Your task to perform on an android device: Add "dell xps" to the cart on walmart.com, then select checkout. Image 0: 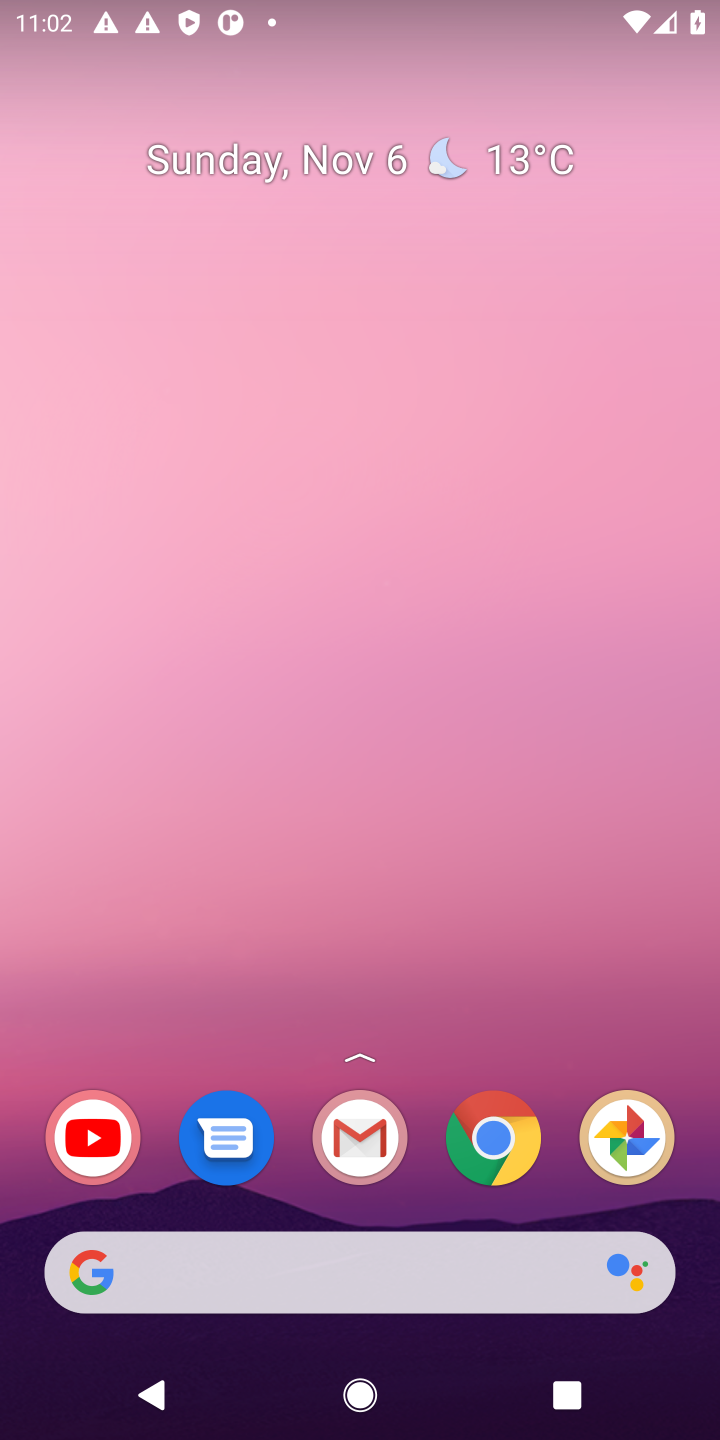
Step 0: click (494, 1143)
Your task to perform on an android device: Add "dell xps" to the cart on walmart.com, then select checkout. Image 1: 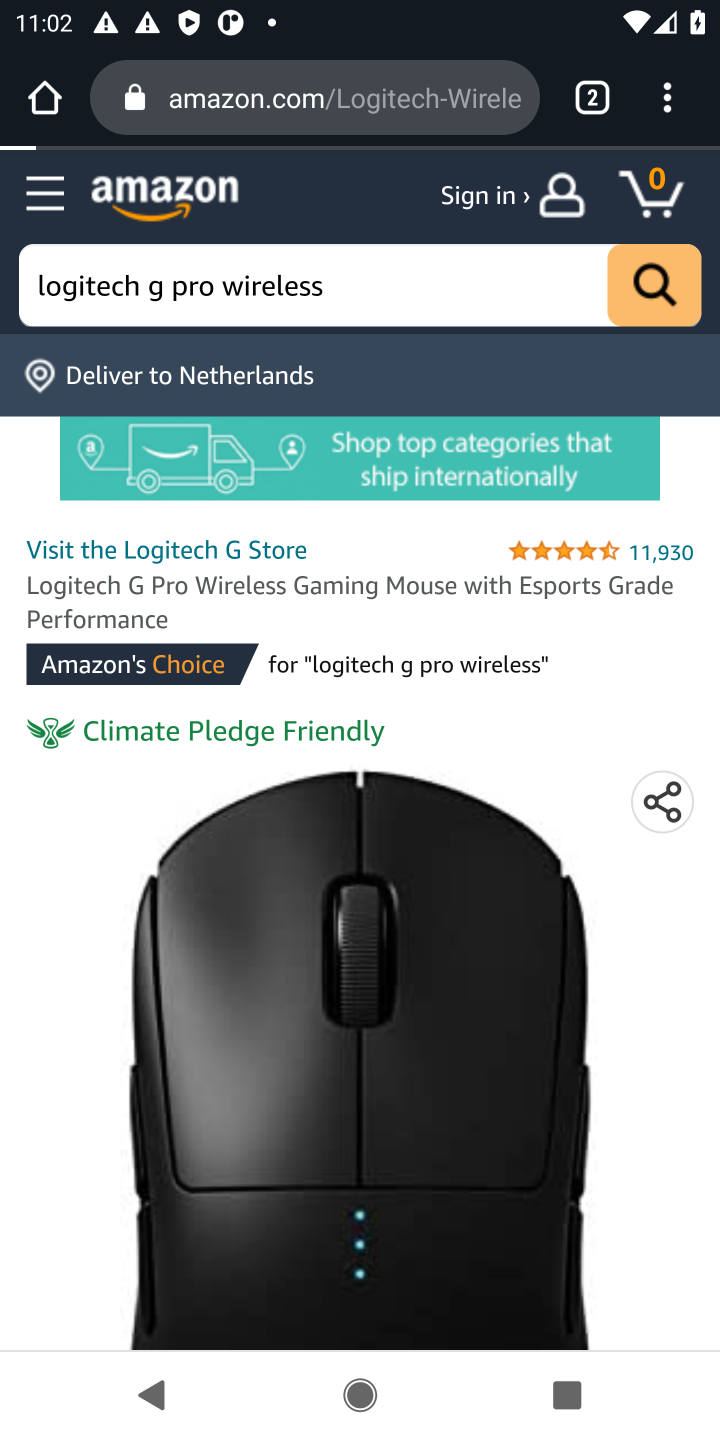
Step 1: click (331, 66)
Your task to perform on an android device: Add "dell xps" to the cart on walmart.com, then select checkout. Image 2: 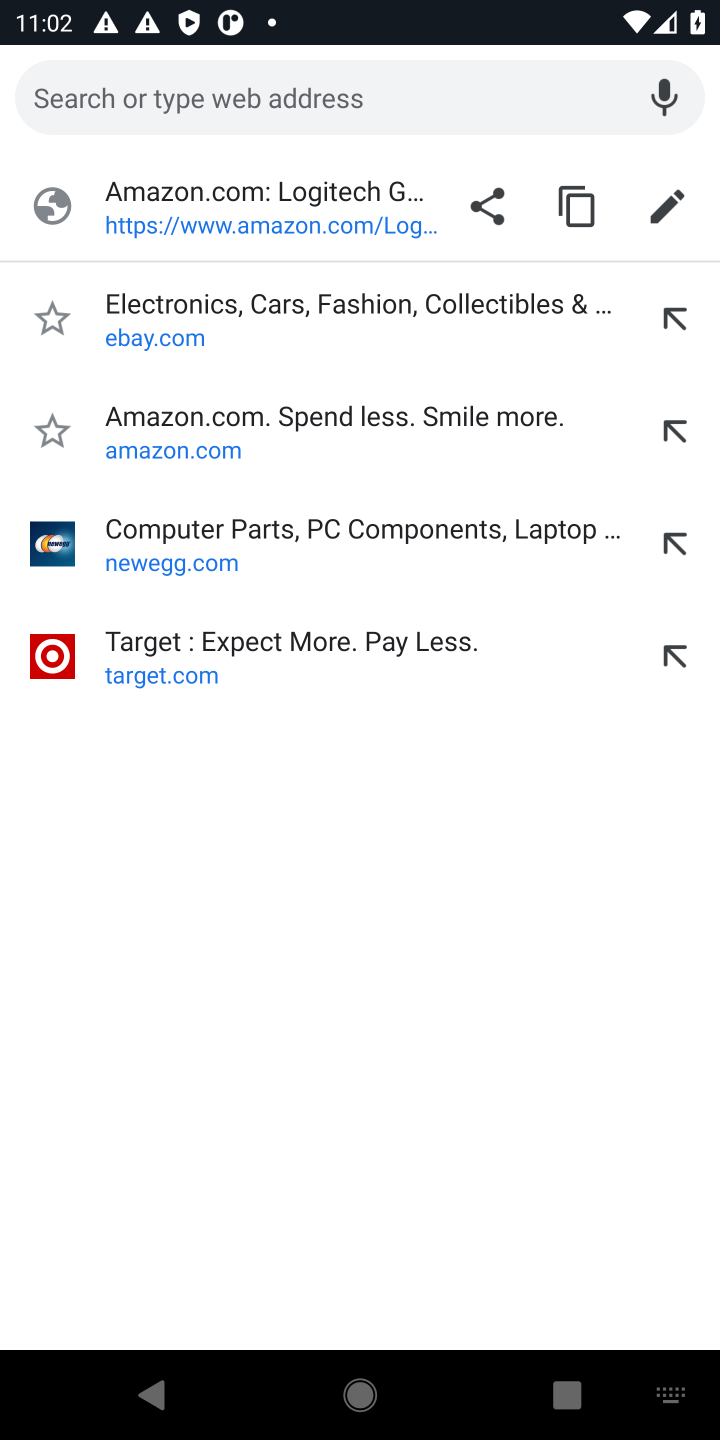
Step 2: type "walmart.com"
Your task to perform on an android device: Add "dell xps" to the cart on walmart.com, then select checkout. Image 3: 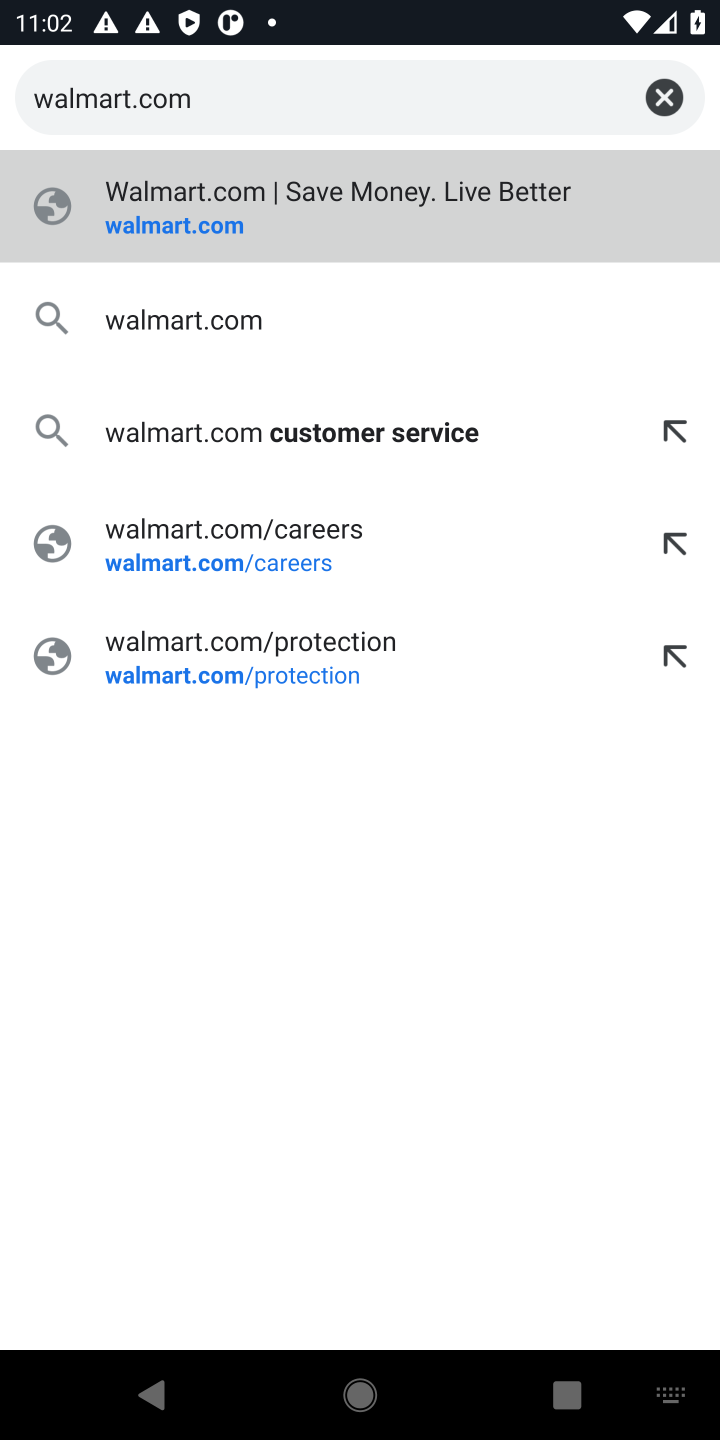
Step 3: click (139, 196)
Your task to perform on an android device: Add "dell xps" to the cart on walmart.com, then select checkout. Image 4: 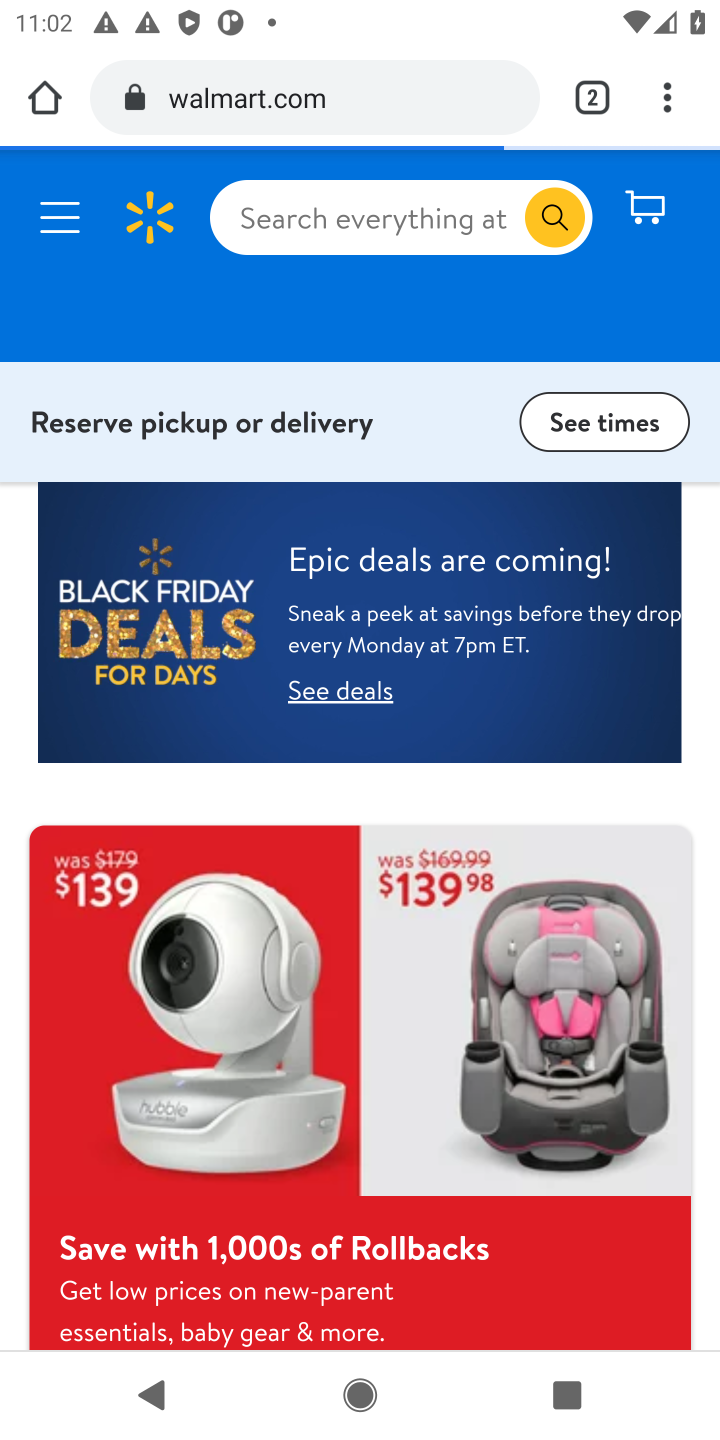
Step 4: click (356, 792)
Your task to perform on an android device: Add "dell xps" to the cart on walmart.com, then select checkout. Image 5: 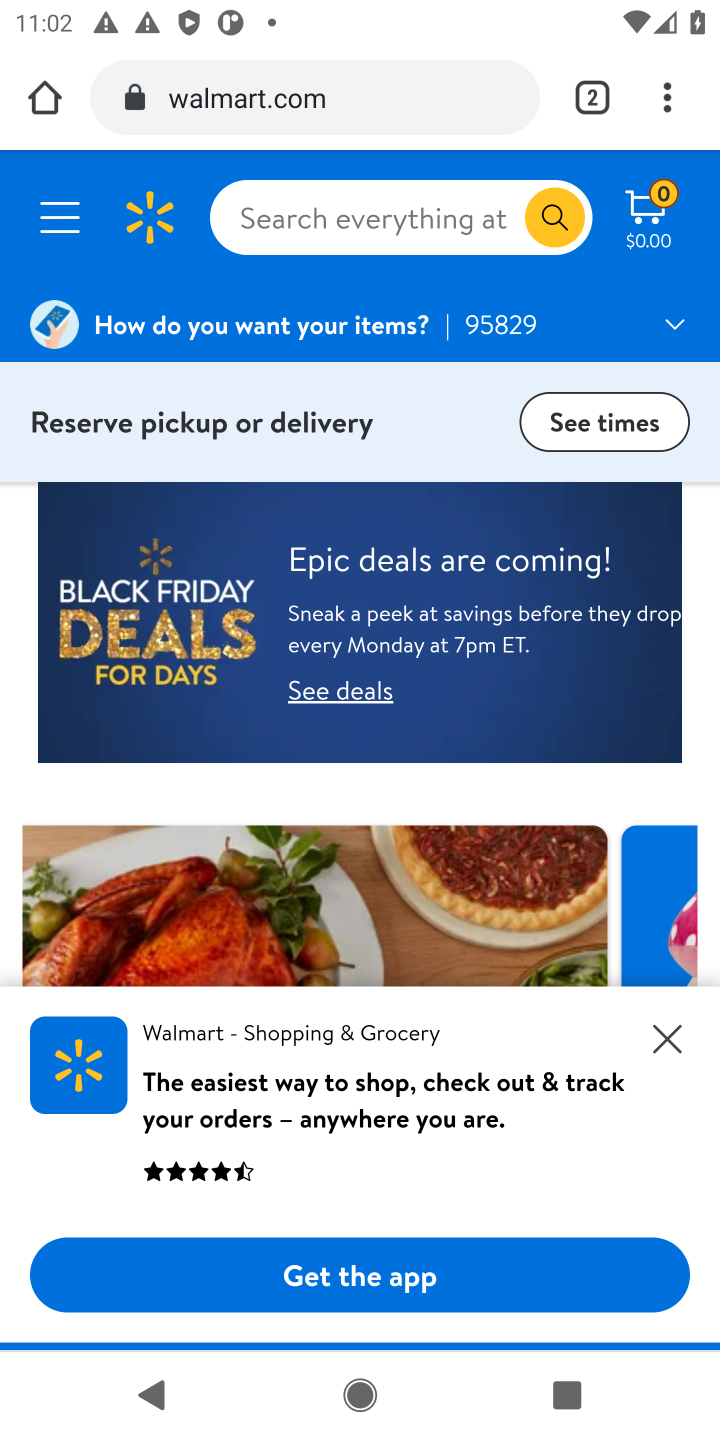
Step 5: click (661, 1034)
Your task to perform on an android device: Add "dell xps" to the cart on walmart.com, then select checkout. Image 6: 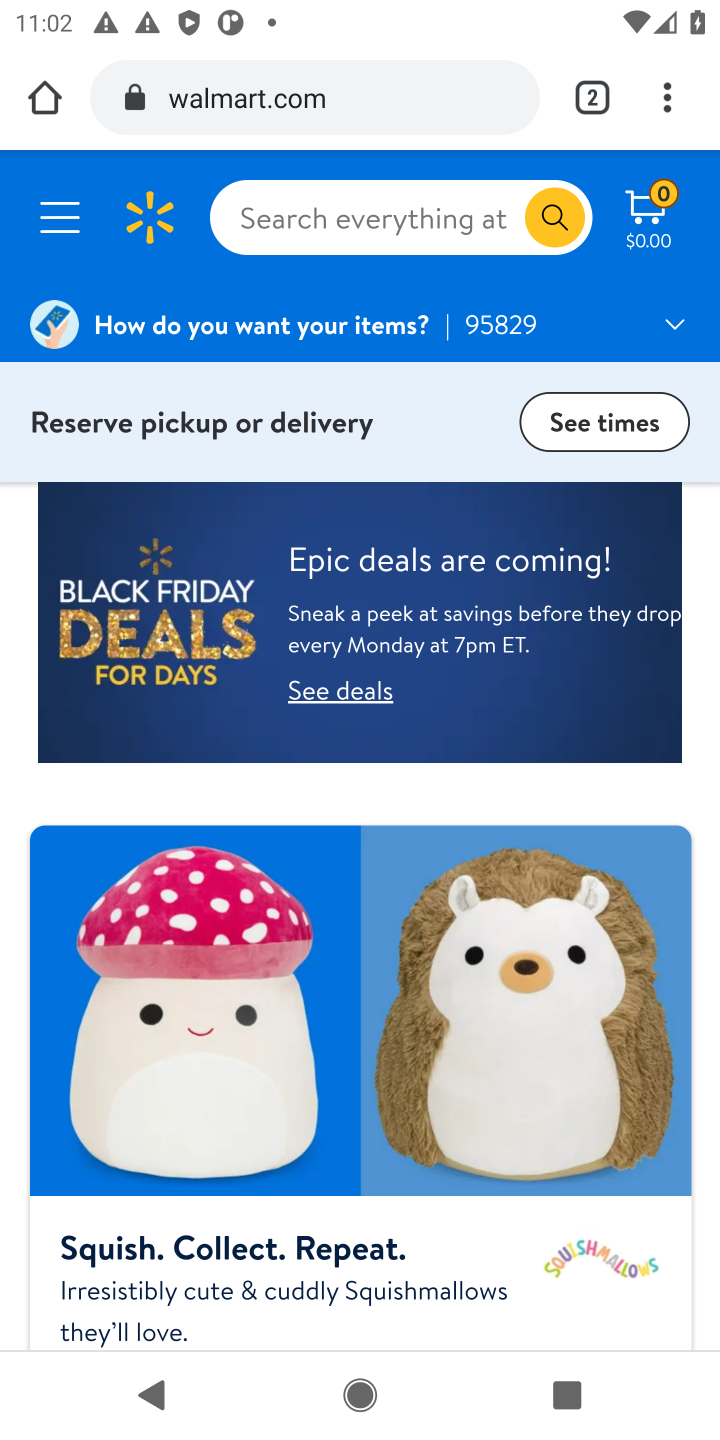
Step 6: click (335, 214)
Your task to perform on an android device: Add "dell xps" to the cart on walmart.com, then select checkout. Image 7: 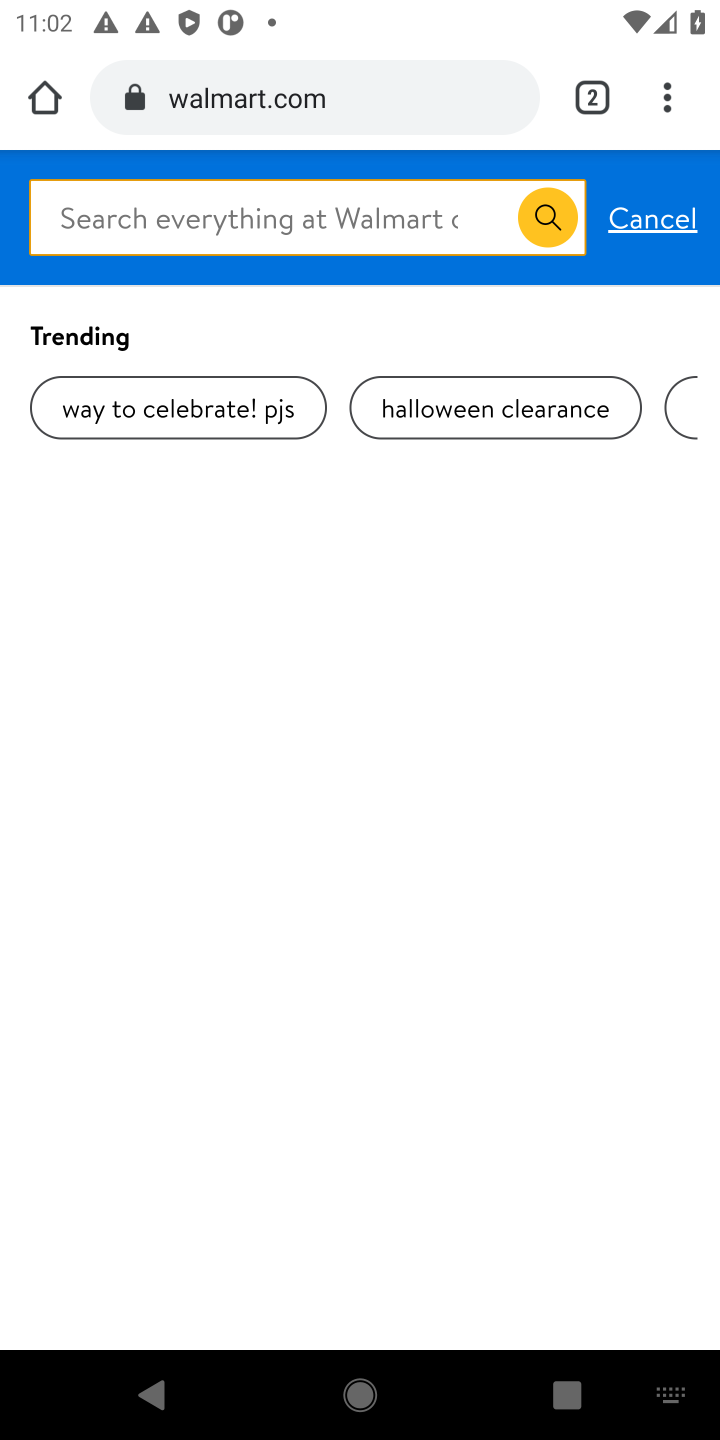
Step 7: type "dell xps"
Your task to perform on an android device: Add "dell xps" to the cart on walmart.com, then select checkout. Image 8: 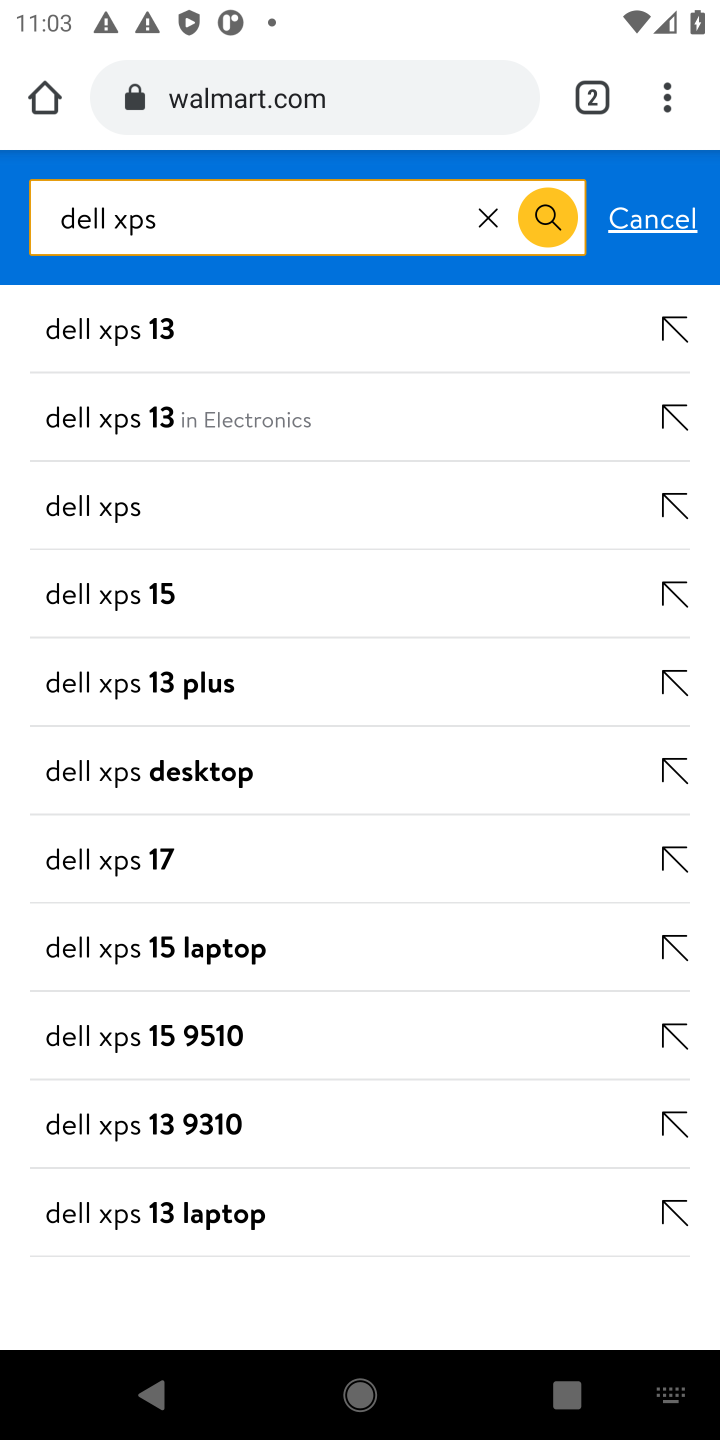
Step 8: click (82, 518)
Your task to perform on an android device: Add "dell xps" to the cart on walmart.com, then select checkout. Image 9: 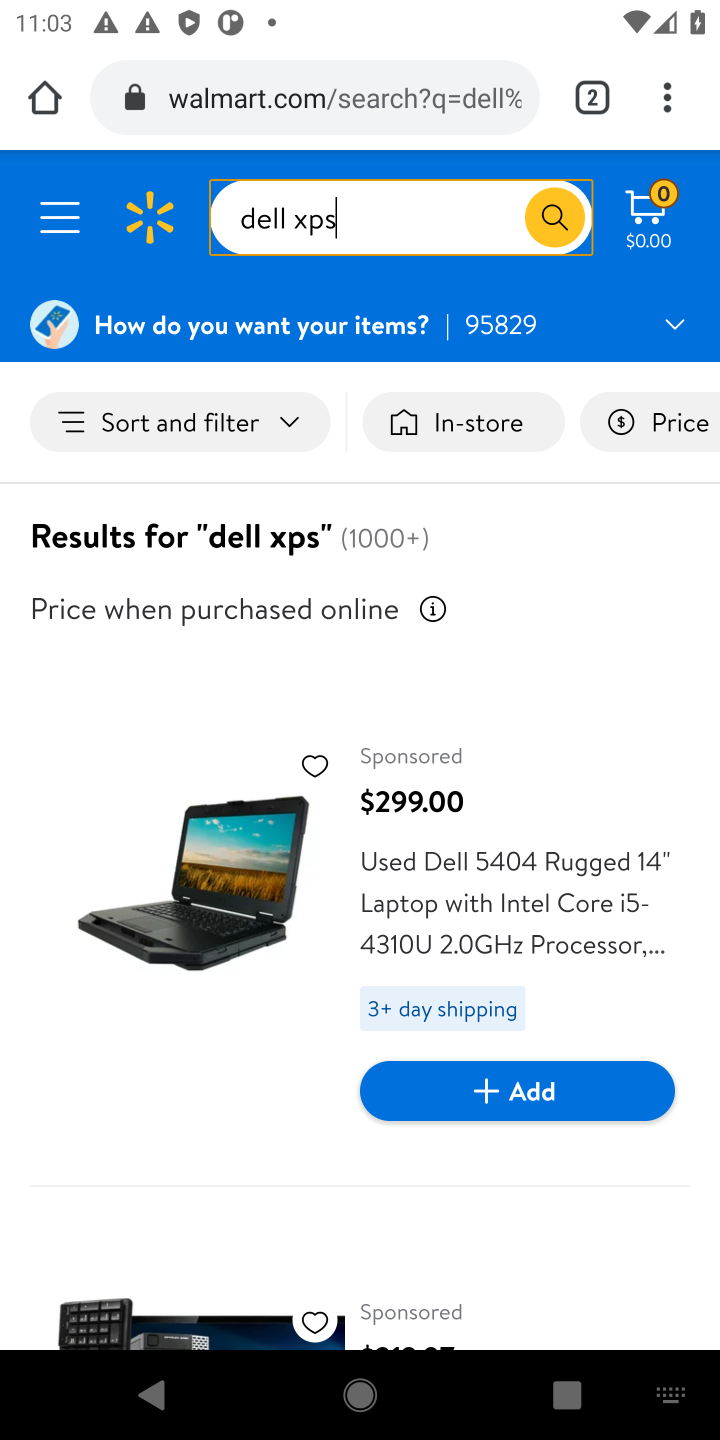
Step 9: drag from (350, 1156) to (355, 475)
Your task to perform on an android device: Add "dell xps" to the cart on walmart.com, then select checkout. Image 10: 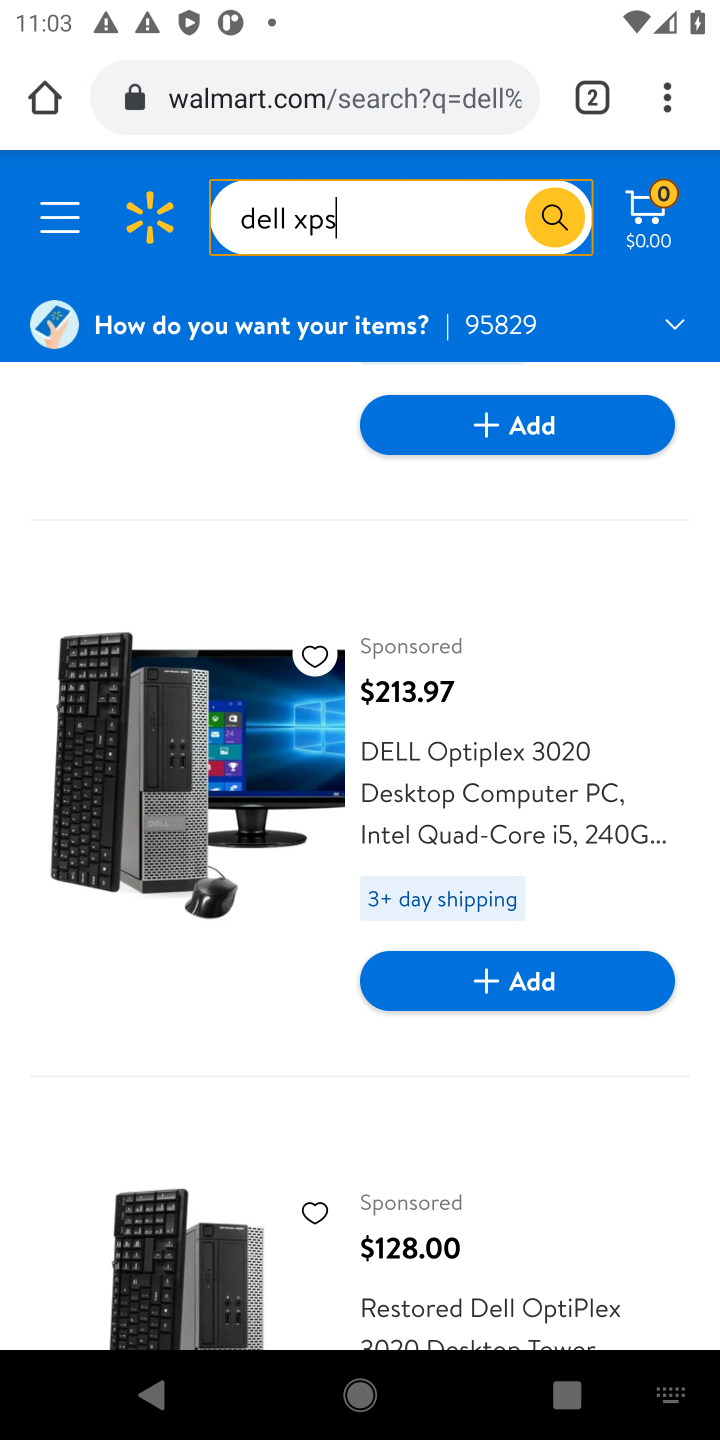
Step 10: drag from (322, 1121) to (328, 568)
Your task to perform on an android device: Add "dell xps" to the cart on walmart.com, then select checkout. Image 11: 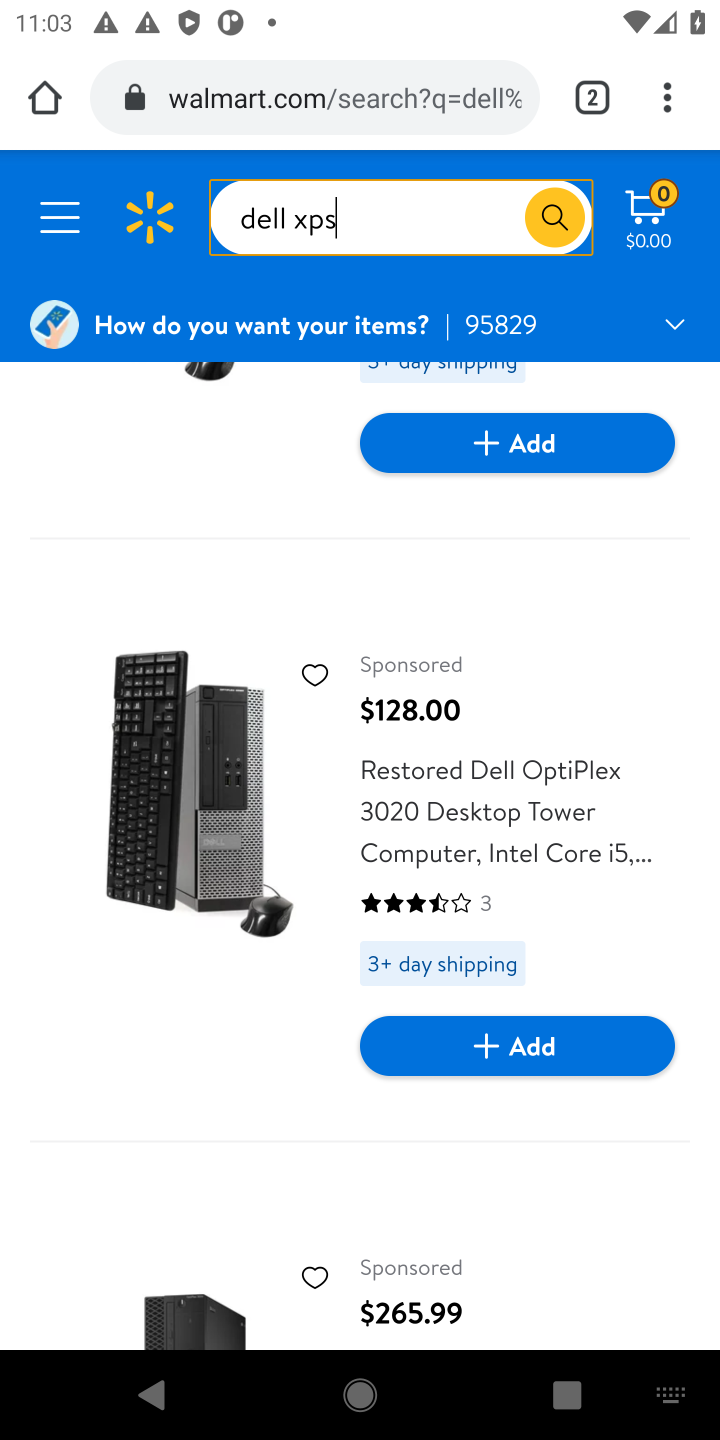
Step 11: drag from (307, 1147) to (334, 536)
Your task to perform on an android device: Add "dell xps" to the cart on walmart.com, then select checkout. Image 12: 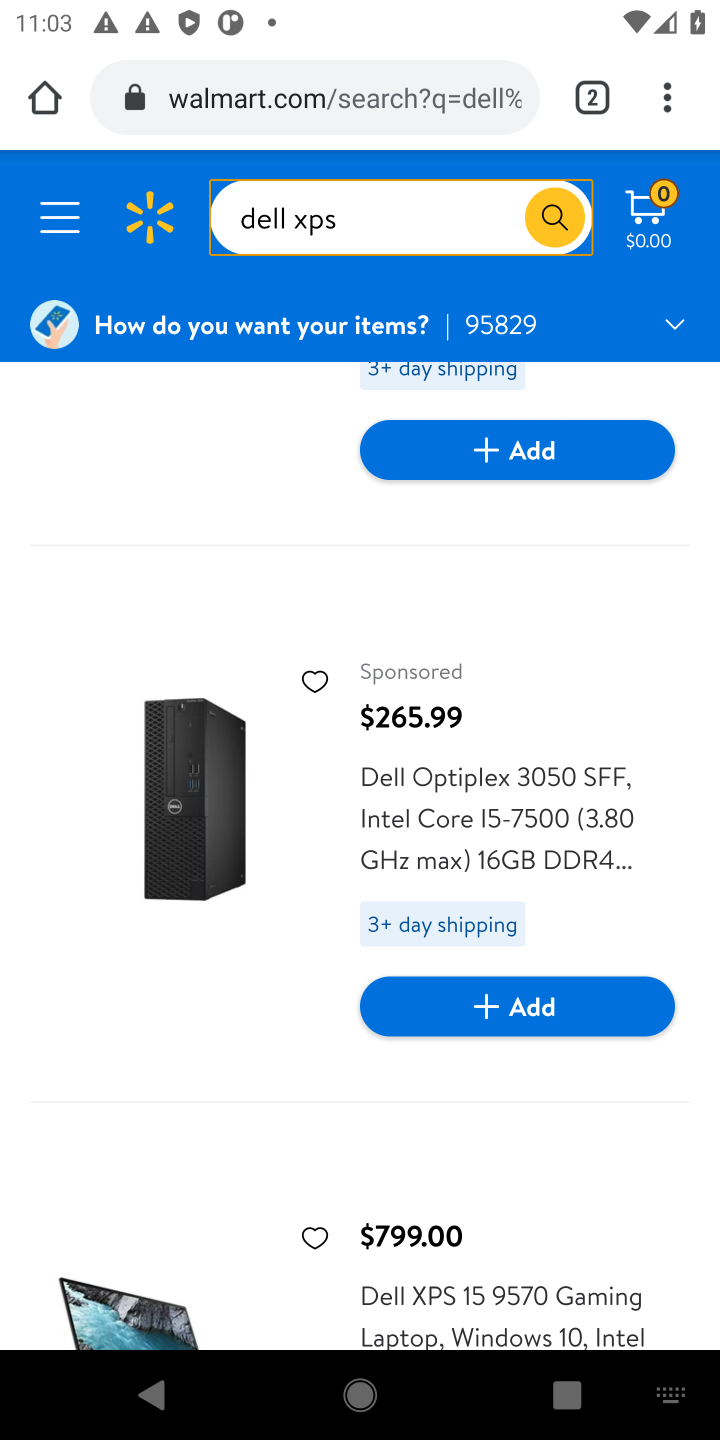
Step 12: drag from (303, 1246) to (295, 458)
Your task to perform on an android device: Add "dell xps" to the cart on walmart.com, then select checkout. Image 13: 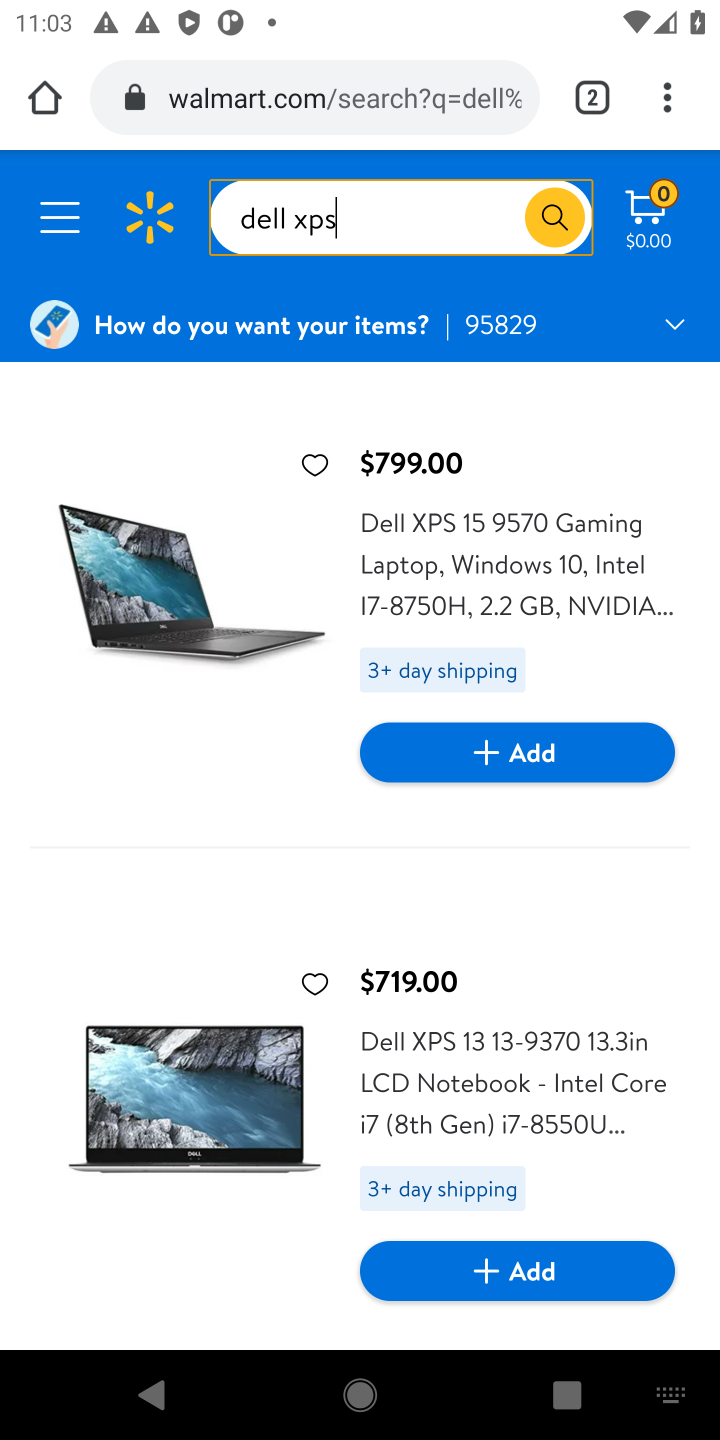
Step 13: click (445, 521)
Your task to perform on an android device: Add "dell xps" to the cart on walmart.com, then select checkout. Image 14: 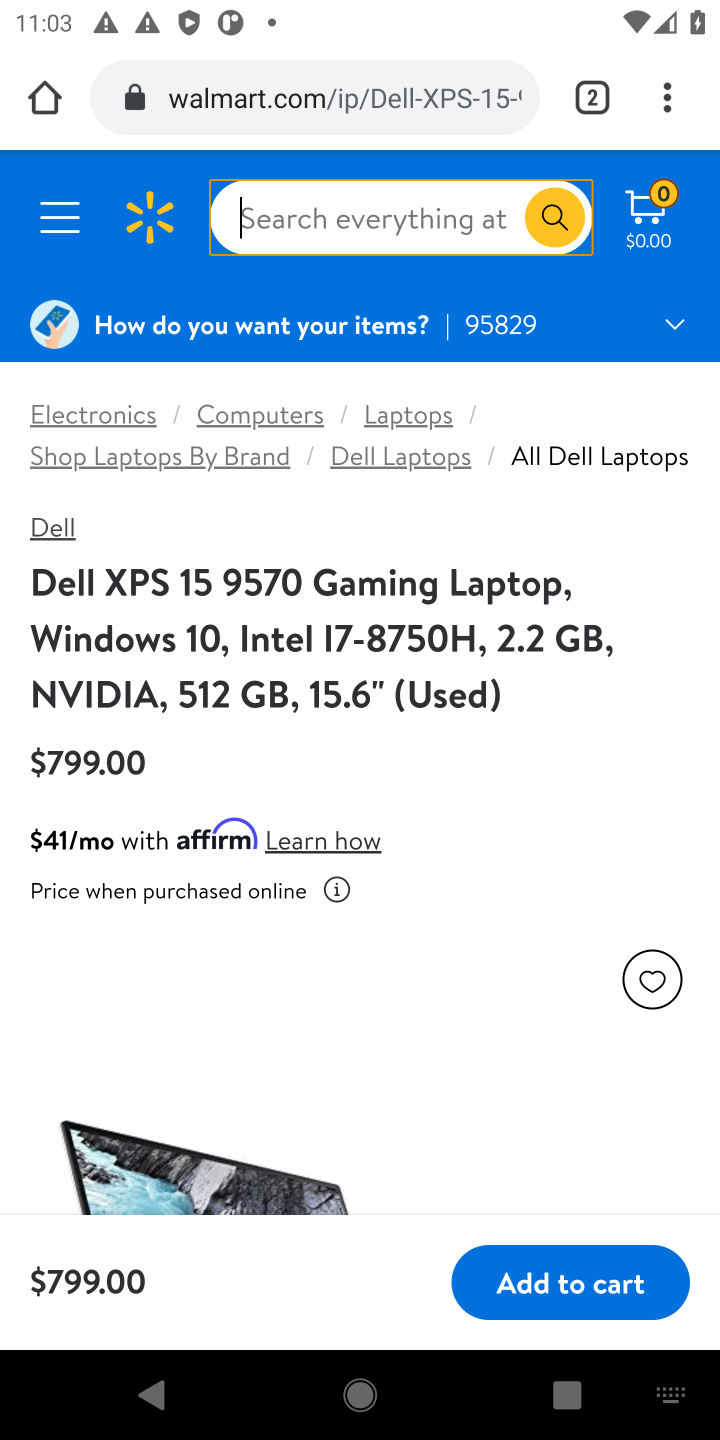
Step 14: drag from (401, 1170) to (417, 696)
Your task to perform on an android device: Add "dell xps" to the cart on walmart.com, then select checkout. Image 15: 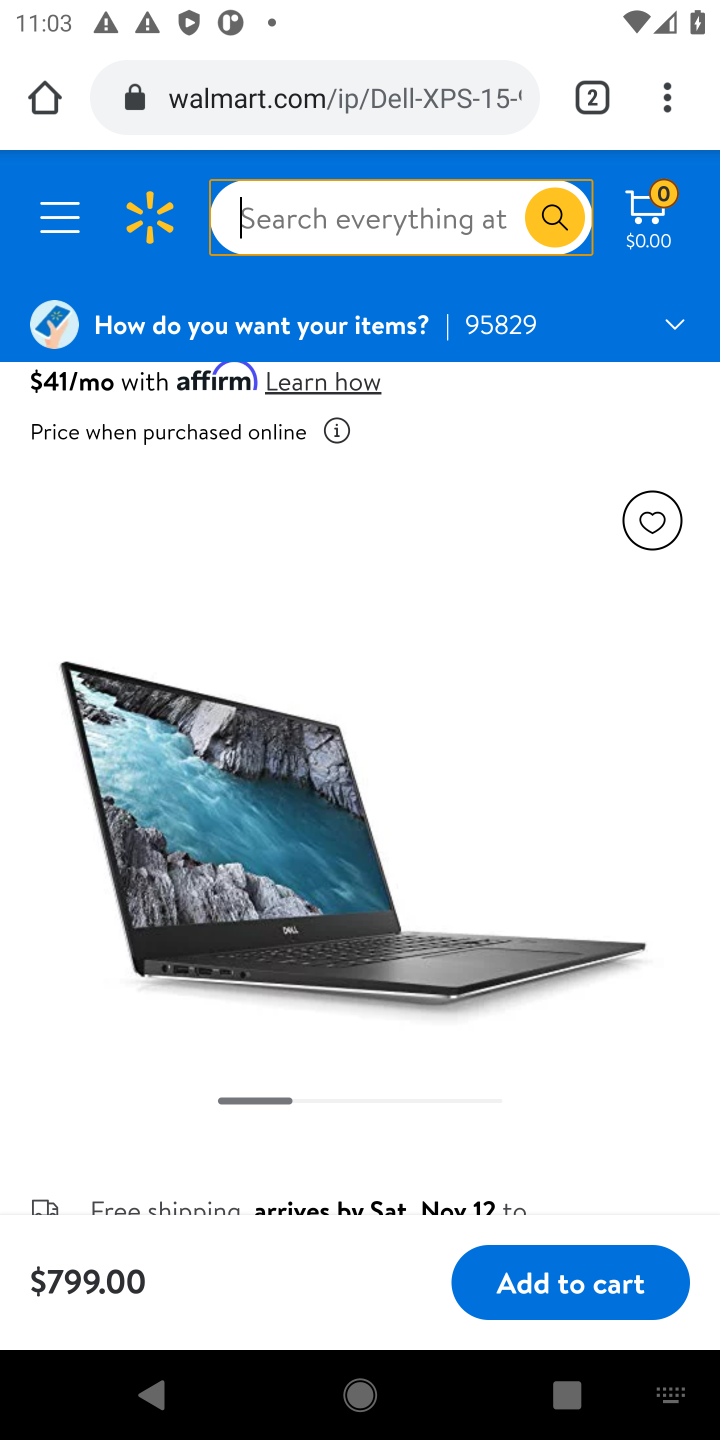
Step 15: click (562, 1282)
Your task to perform on an android device: Add "dell xps" to the cart on walmart.com, then select checkout. Image 16: 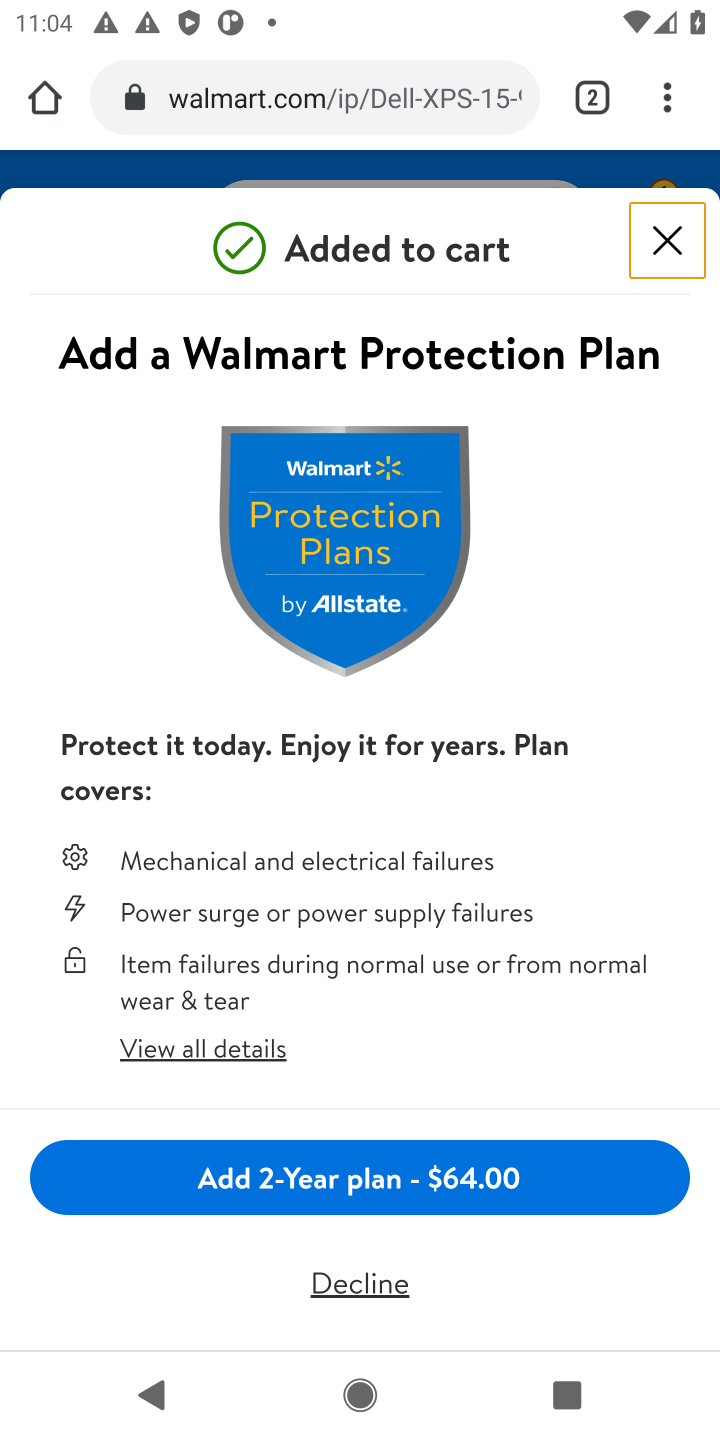
Step 16: click (357, 1289)
Your task to perform on an android device: Add "dell xps" to the cart on walmart.com, then select checkout. Image 17: 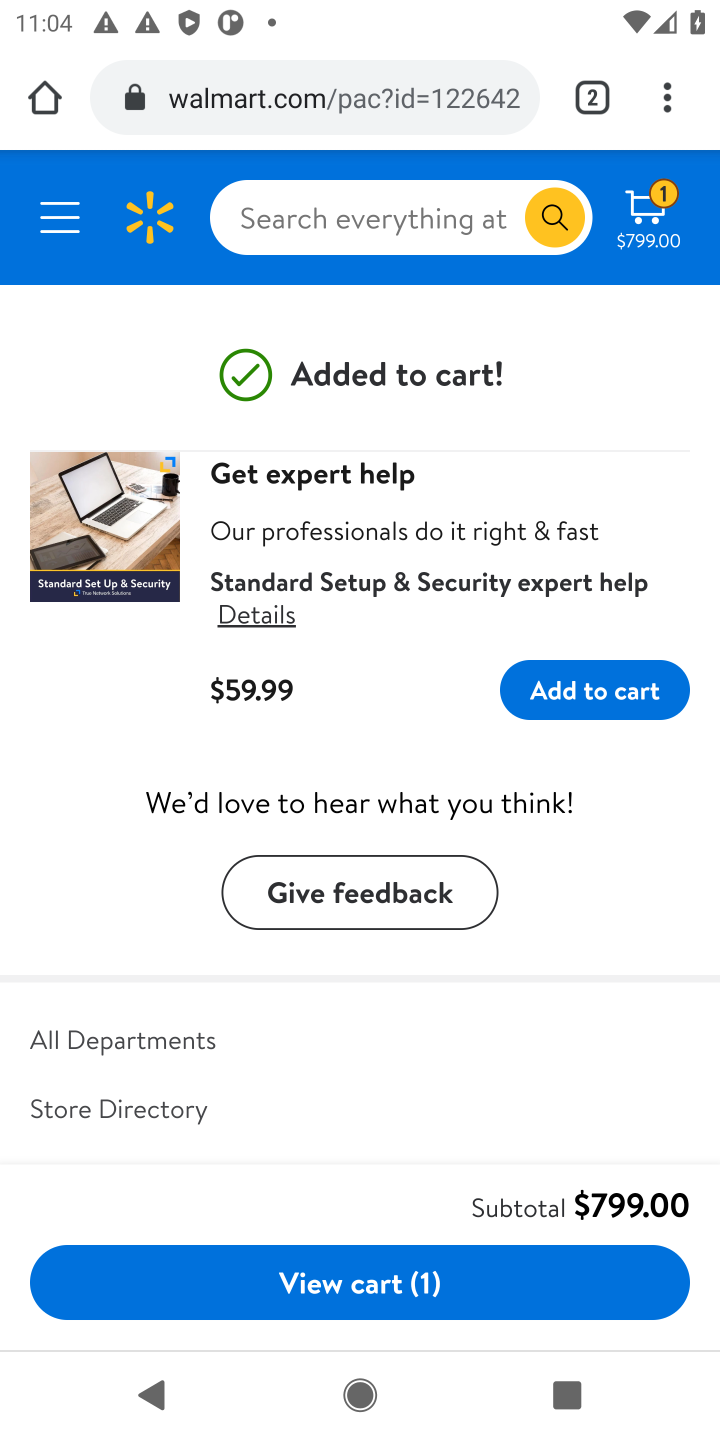
Step 17: click (362, 1284)
Your task to perform on an android device: Add "dell xps" to the cart on walmart.com, then select checkout. Image 18: 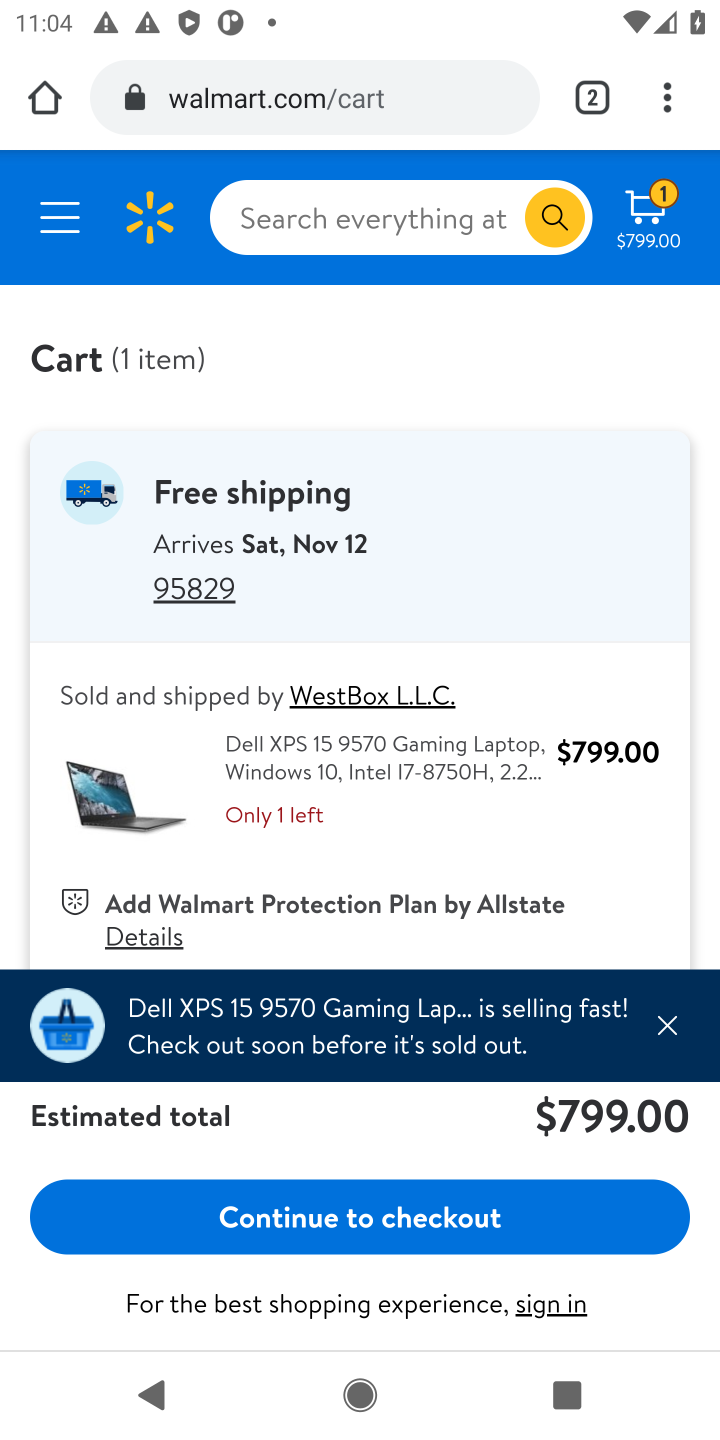
Step 18: click (412, 1228)
Your task to perform on an android device: Add "dell xps" to the cart on walmart.com, then select checkout. Image 19: 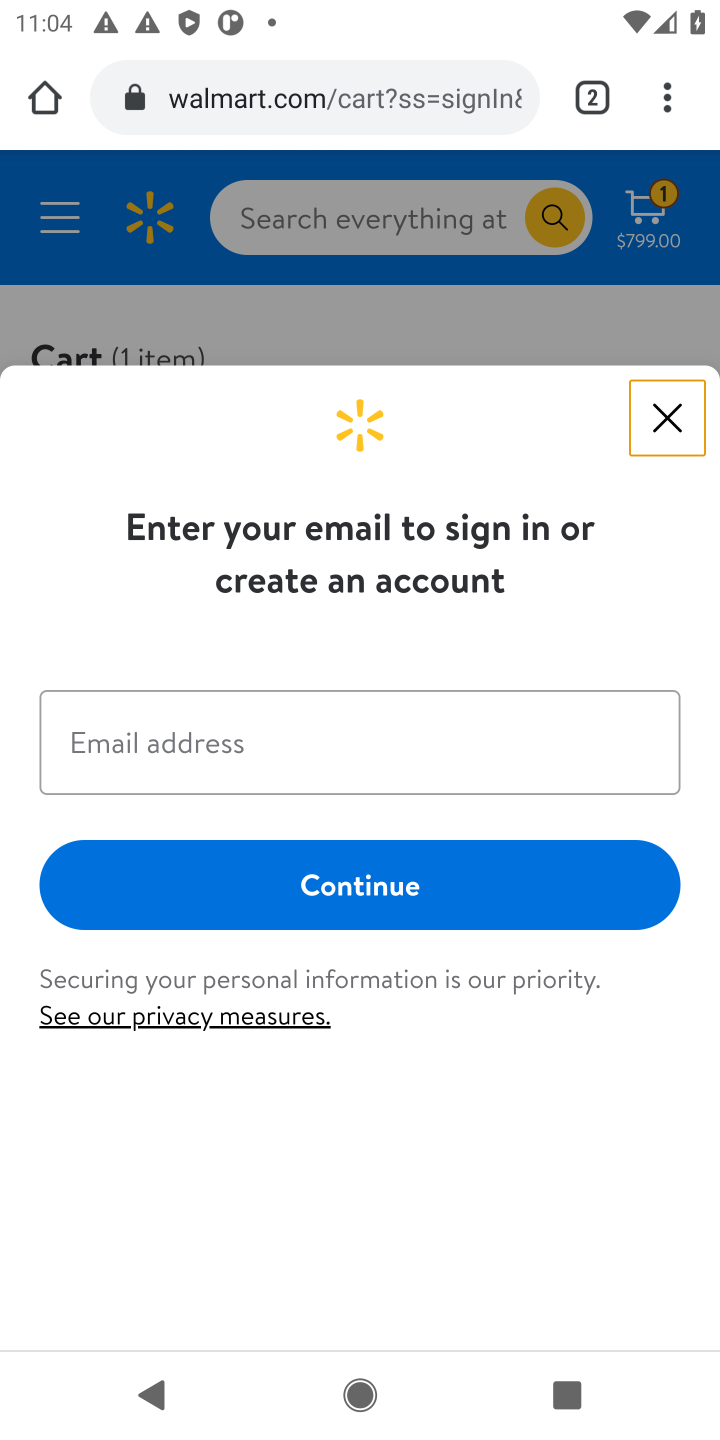
Step 19: task complete